Your task to perform on an android device: Open notification settings Image 0: 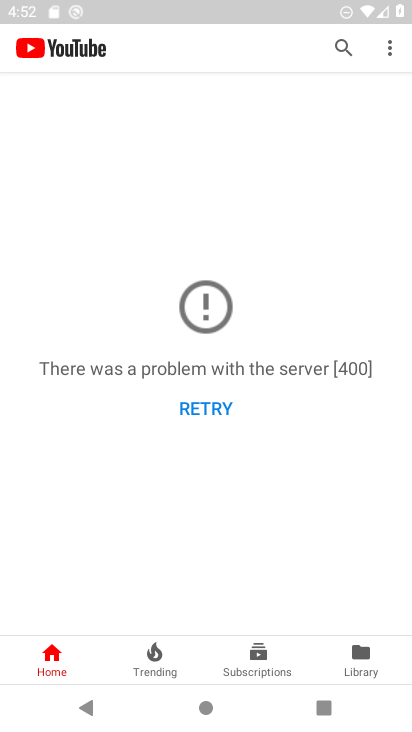
Step 0: press back button
Your task to perform on an android device: Open notification settings Image 1: 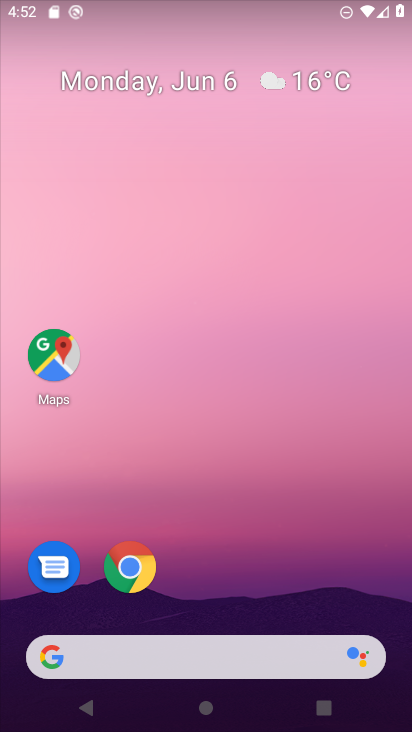
Step 1: drag from (267, 683) to (174, 192)
Your task to perform on an android device: Open notification settings Image 2: 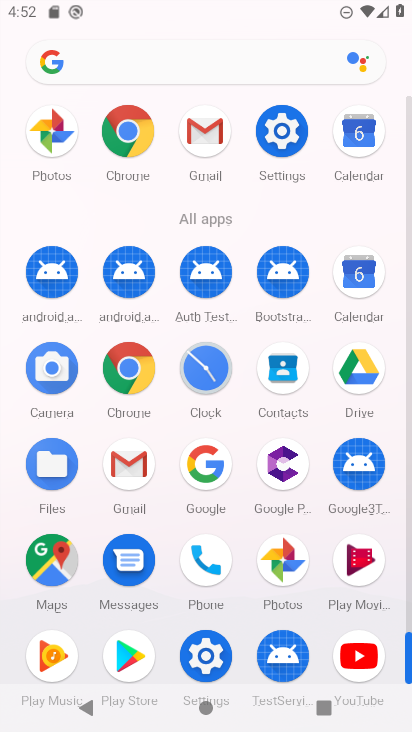
Step 2: click (295, 131)
Your task to perform on an android device: Open notification settings Image 3: 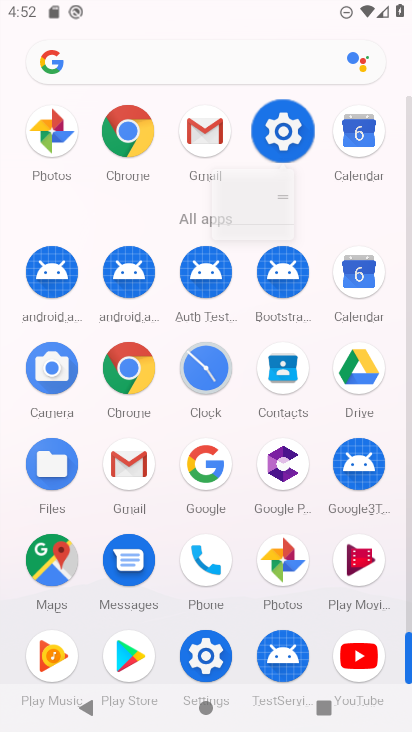
Step 3: click (295, 131)
Your task to perform on an android device: Open notification settings Image 4: 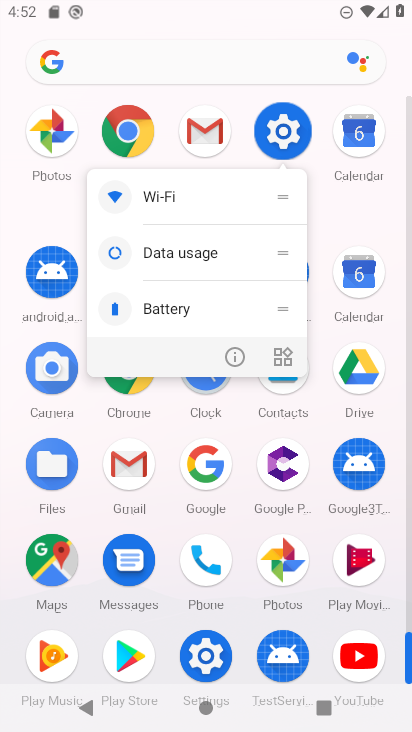
Step 4: click (299, 142)
Your task to perform on an android device: Open notification settings Image 5: 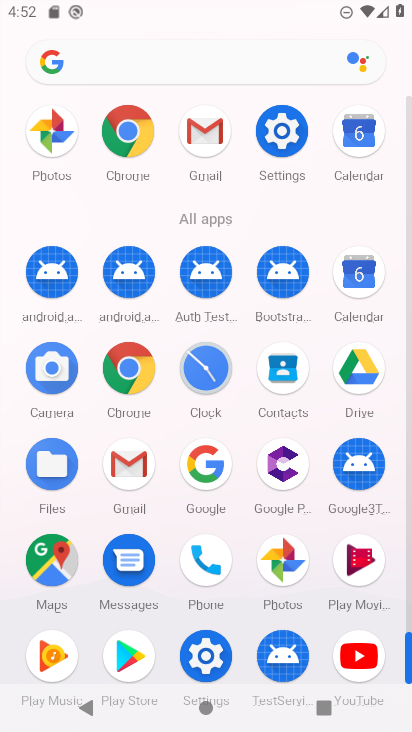
Step 5: click (304, 147)
Your task to perform on an android device: Open notification settings Image 6: 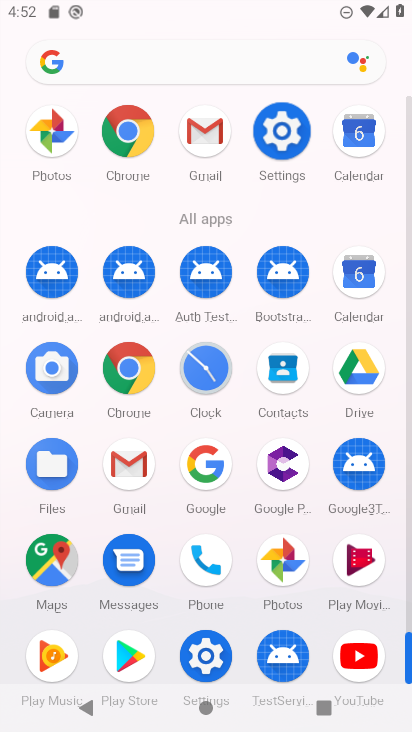
Step 6: click (305, 148)
Your task to perform on an android device: Open notification settings Image 7: 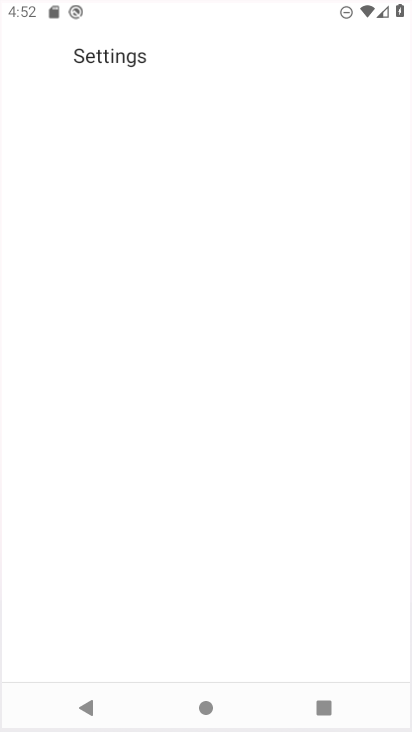
Step 7: click (304, 149)
Your task to perform on an android device: Open notification settings Image 8: 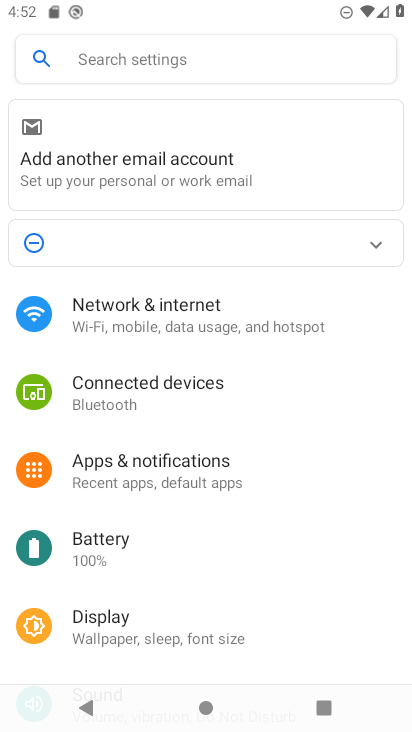
Step 8: click (301, 151)
Your task to perform on an android device: Open notification settings Image 9: 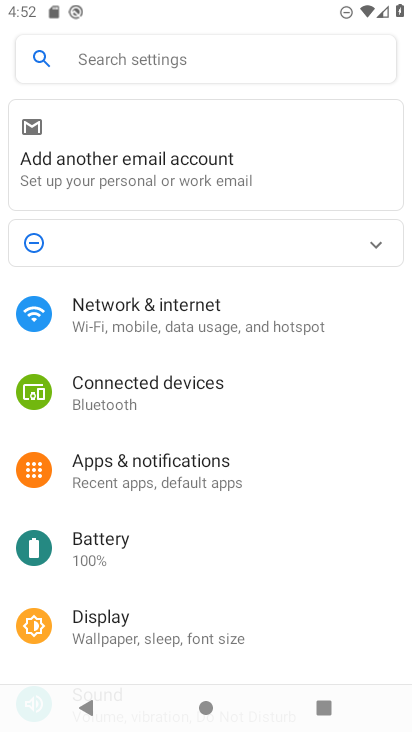
Step 9: click (144, 469)
Your task to perform on an android device: Open notification settings Image 10: 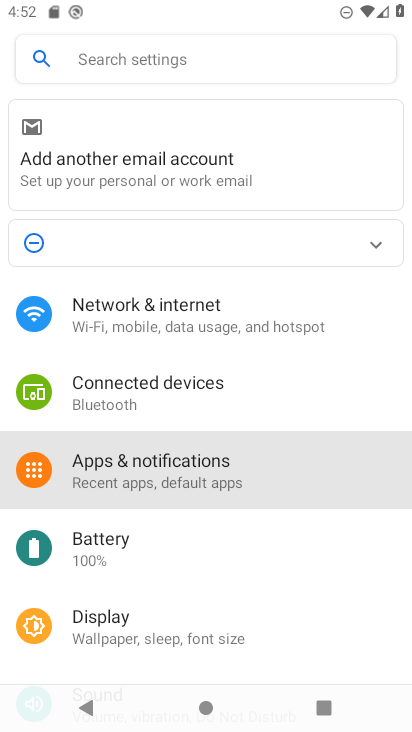
Step 10: click (148, 462)
Your task to perform on an android device: Open notification settings Image 11: 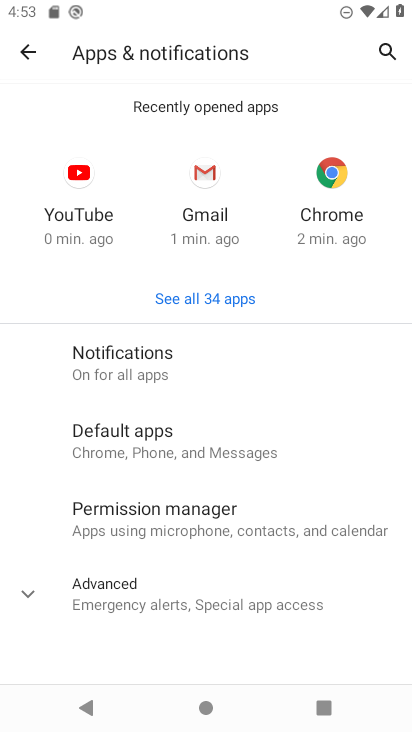
Step 11: click (105, 370)
Your task to perform on an android device: Open notification settings Image 12: 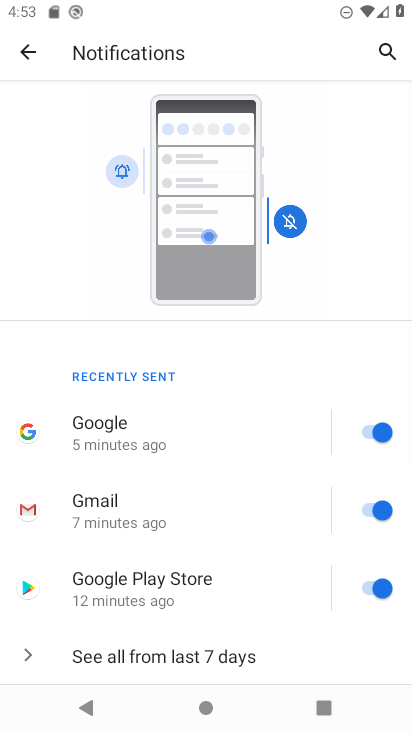
Step 12: task complete